Your task to perform on an android device: choose inbox layout in the gmail app Image 0: 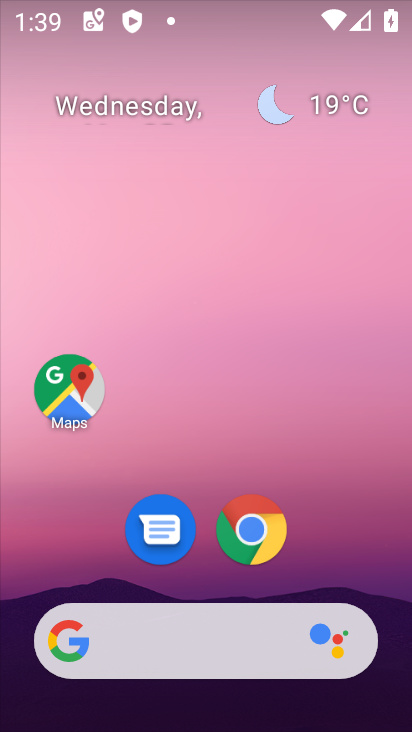
Step 0: drag from (95, 603) to (146, 111)
Your task to perform on an android device: choose inbox layout in the gmail app Image 1: 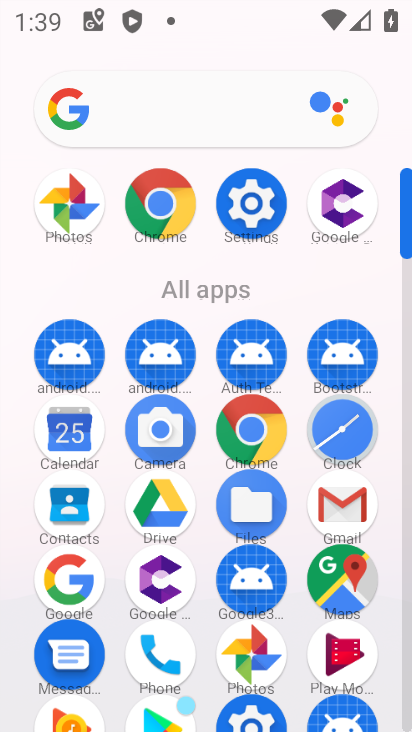
Step 1: drag from (155, 655) to (207, 422)
Your task to perform on an android device: choose inbox layout in the gmail app Image 2: 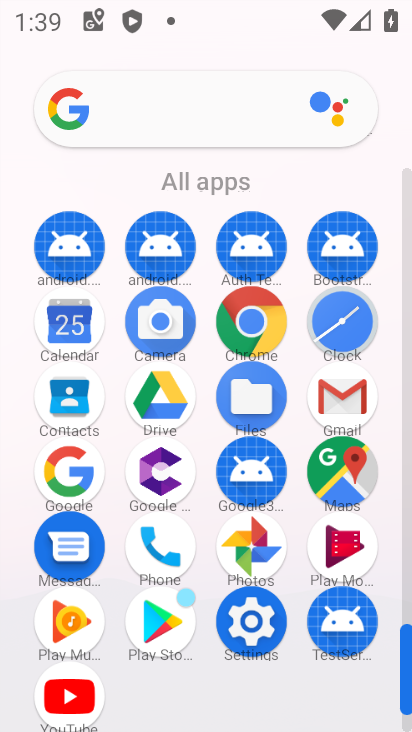
Step 2: click (338, 414)
Your task to perform on an android device: choose inbox layout in the gmail app Image 3: 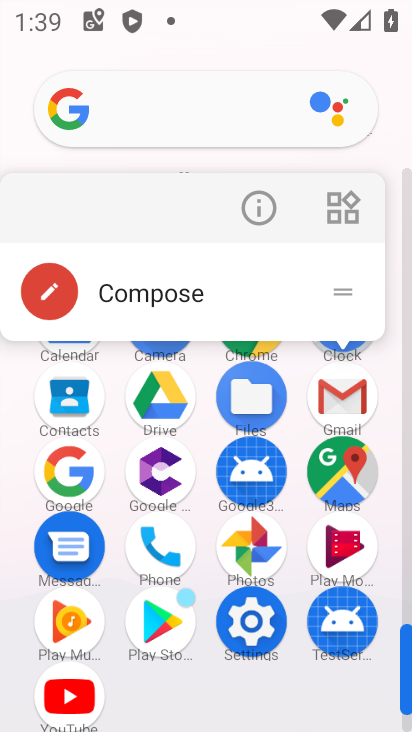
Step 3: click (334, 398)
Your task to perform on an android device: choose inbox layout in the gmail app Image 4: 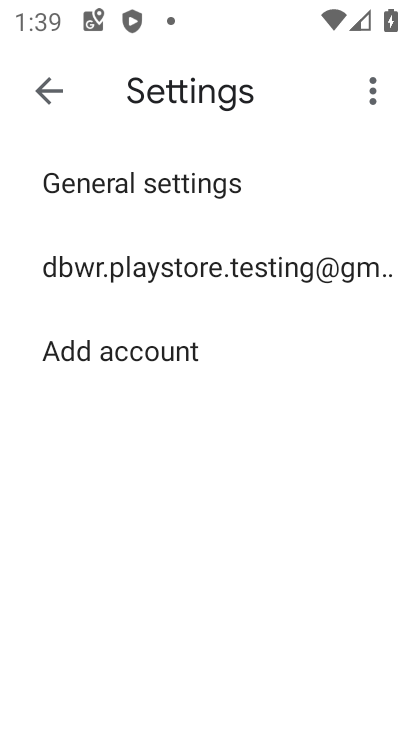
Step 4: click (284, 256)
Your task to perform on an android device: choose inbox layout in the gmail app Image 5: 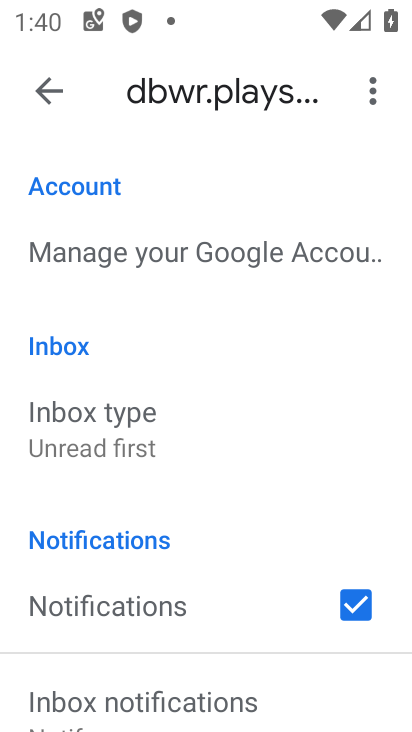
Step 5: click (160, 465)
Your task to perform on an android device: choose inbox layout in the gmail app Image 6: 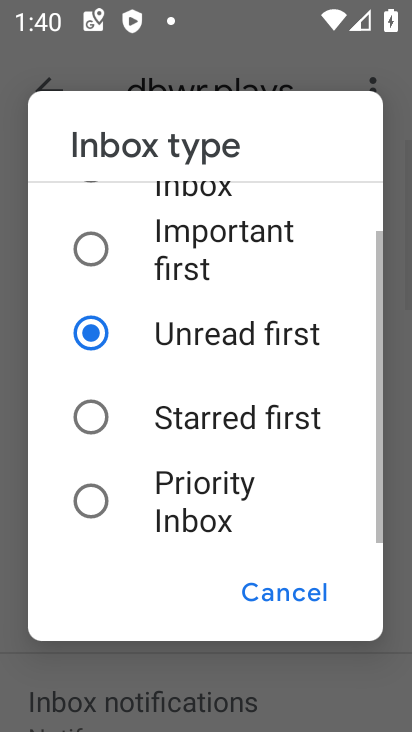
Step 6: click (206, 250)
Your task to perform on an android device: choose inbox layout in the gmail app Image 7: 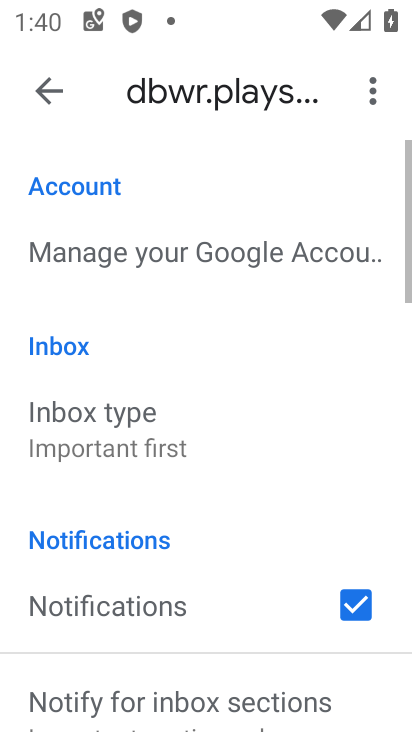
Step 7: task complete